Your task to perform on an android device: turn off data saver in the chrome app Image 0: 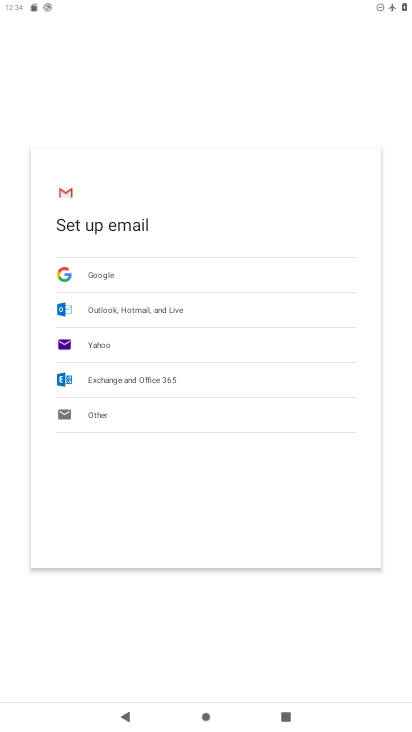
Step 0: press home button
Your task to perform on an android device: turn off data saver in the chrome app Image 1: 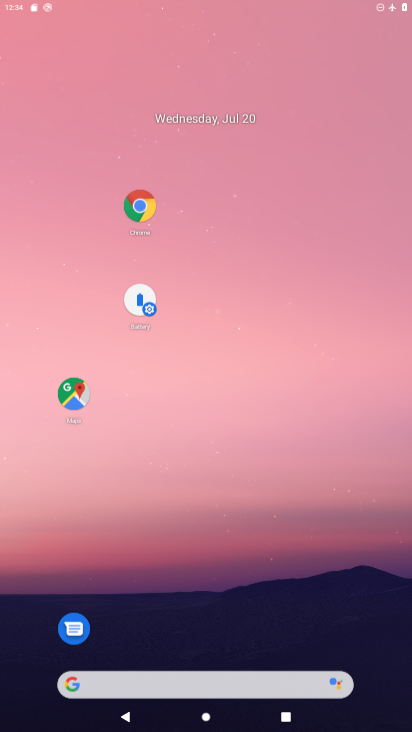
Step 1: drag from (214, 459) to (242, 263)
Your task to perform on an android device: turn off data saver in the chrome app Image 2: 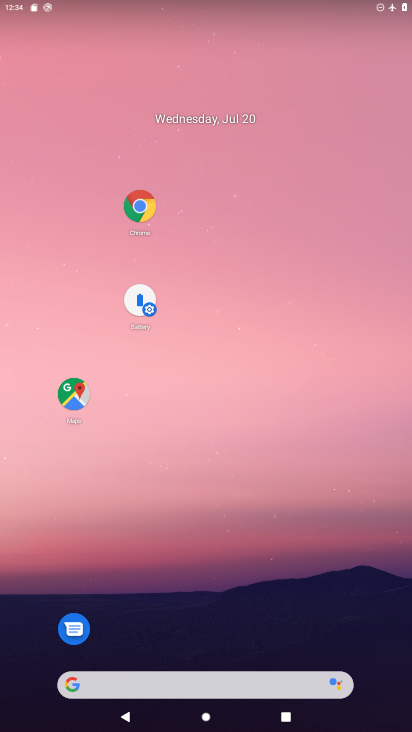
Step 2: drag from (178, 647) to (170, 148)
Your task to perform on an android device: turn off data saver in the chrome app Image 3: 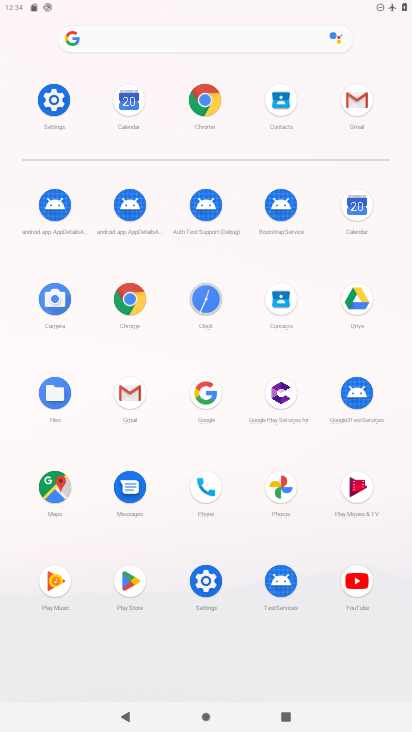
Step 3: click (122, 294)
Your task to perform on an android device: turn off data saver in the chrome app Image 4: 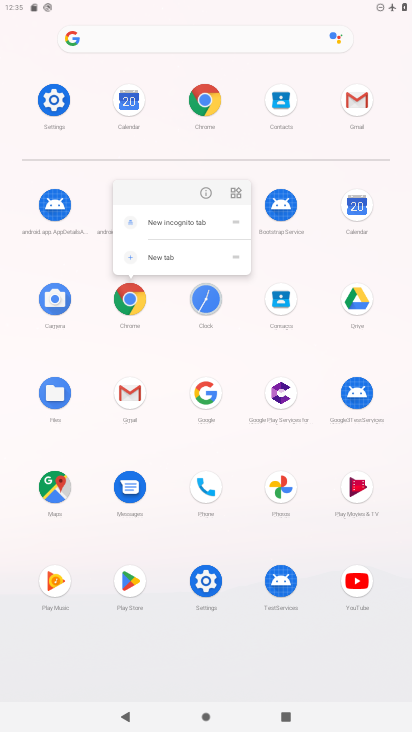
Step 4: click (207, 193)
Your task to perform on an android device: turn off data saver in the chrome app Image 5: 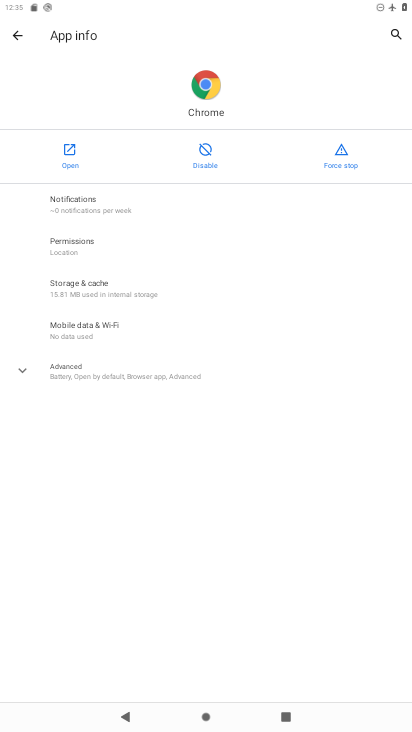
Step 5: click (47, 148)
Your task to perform on an android device: turn off data saver in the chrome app Image 6: 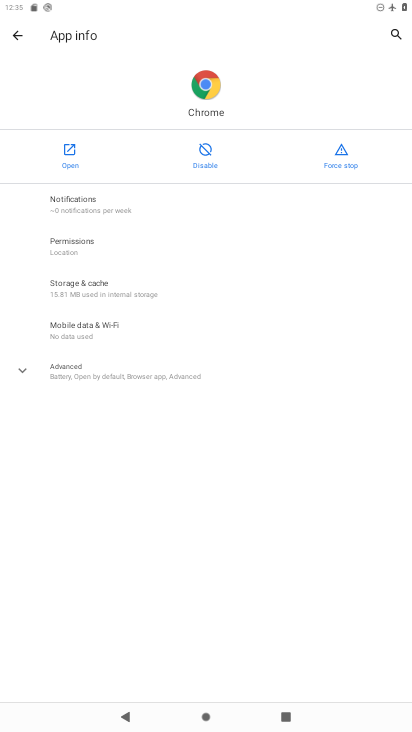
Step 6: click (53, 153)
Your task to perform on an android device: turn off data saver in the chrome app Image 7: 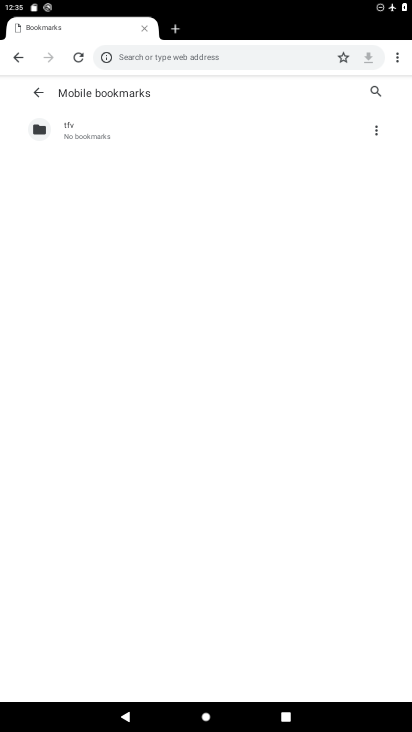
Step 7: drag from (386, 57) to (292, 261)
Your task to perform on an android device: turn off data saver in the chrome app Image 8: 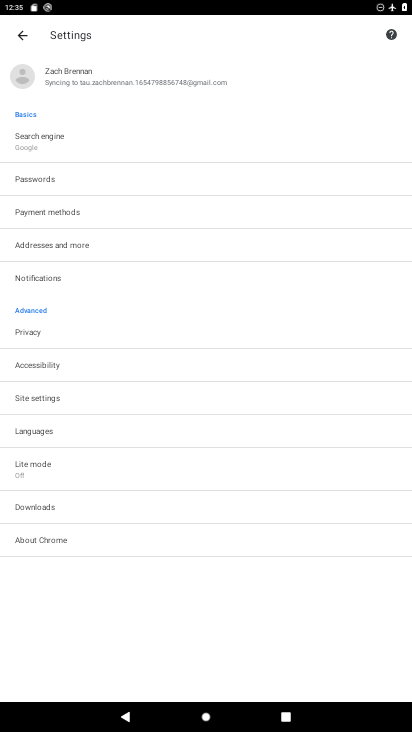
Step 8: click (49, 397)
Your task to perform on an android device: turn off data saver in the chrome app Image 9: 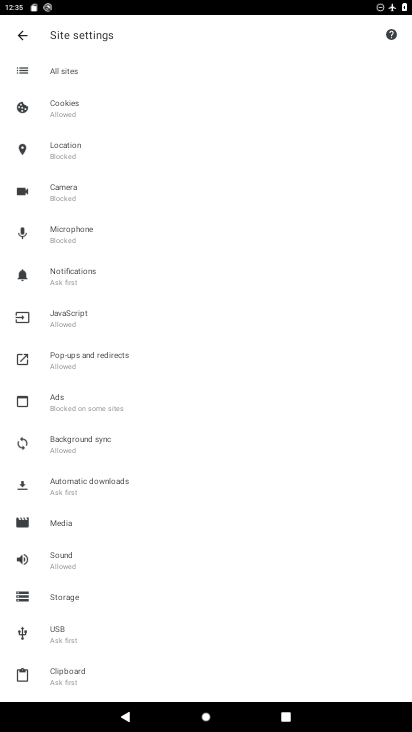
Step 9: drag from (144, 500) to (199, 184)
Your task to perform on an android device: turn off data saver in the chrome app Image 10: 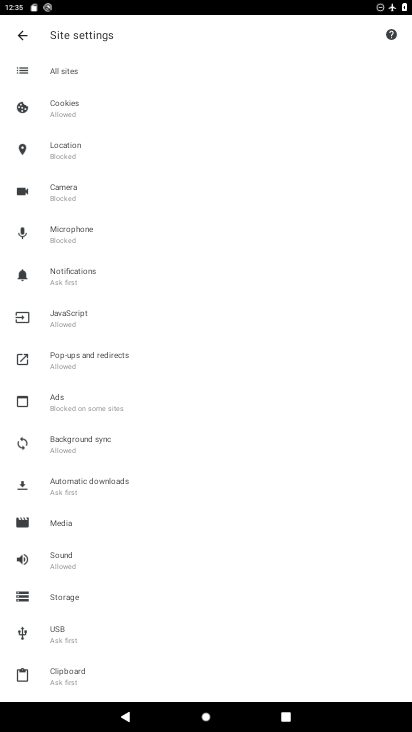
Step 10: click (18, 33)
Your task to perform on an android device: turn off data saver in the chrome app Image 11: 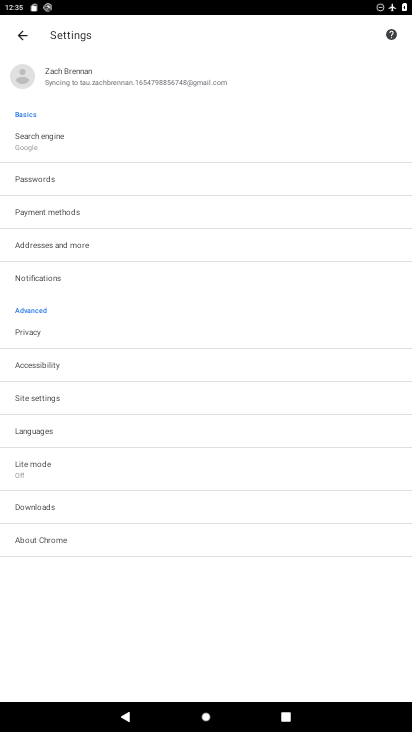
Step 11: click (61, 465)
Your task to perform on an android device: turn off data saver in the chrome app Image 12: 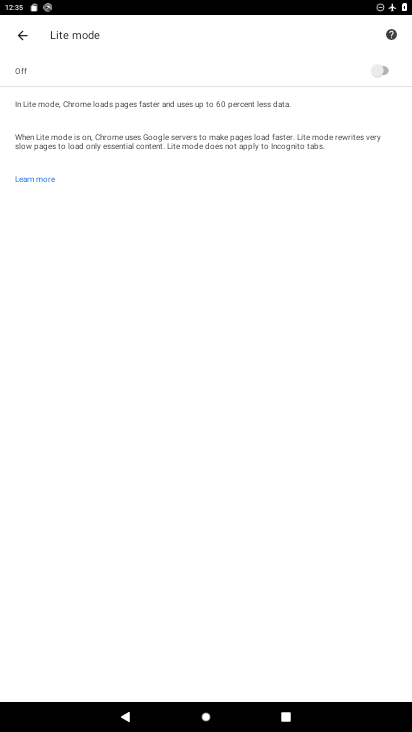
Step 12: task complete